Your task to perform on an android device: Open maps Image 0: 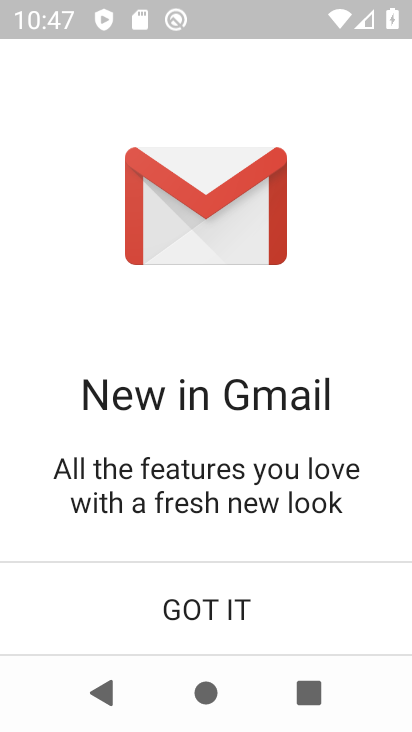
Step 0: press home button
Your task to perform on an android device: Open maps Image 1: 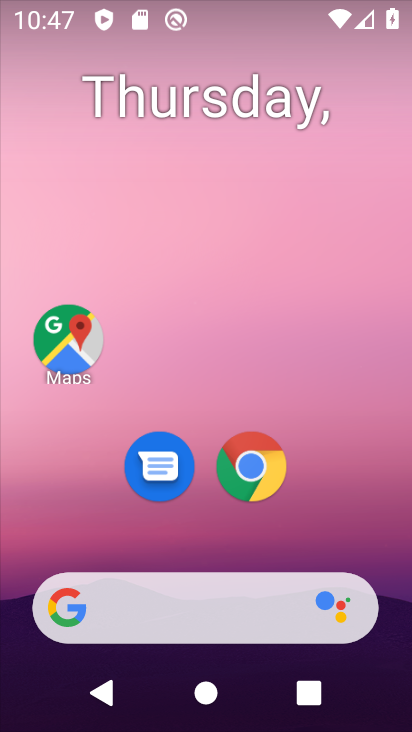
Step 1: click (79, 355)
Your task to perform on an android device: Open maps Image 2: 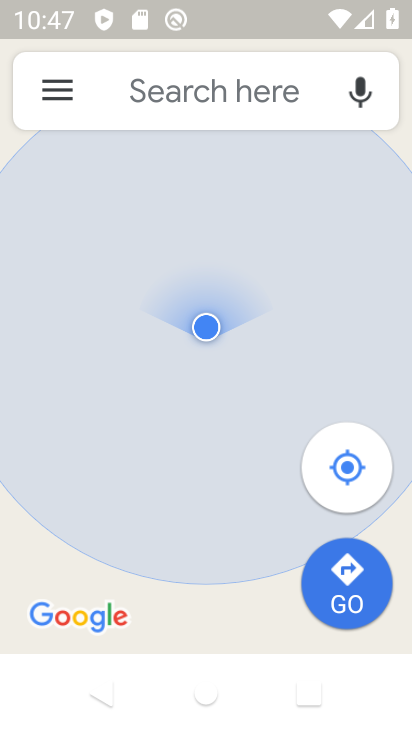
Step 2: task complete